Your task to perform on an android device: Search for vegetarian restaurants on Maps Image 0: 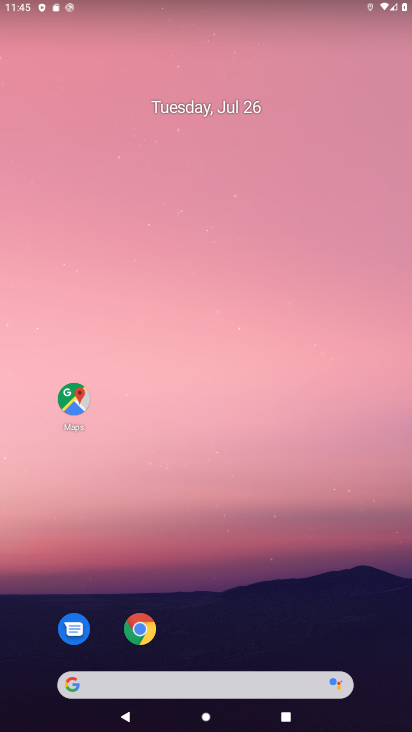
Step 0: drag from (229, 696) to (233, 208)
Your task to perform on an android device: Search for vegetarian restaurants on Maps Image 1: 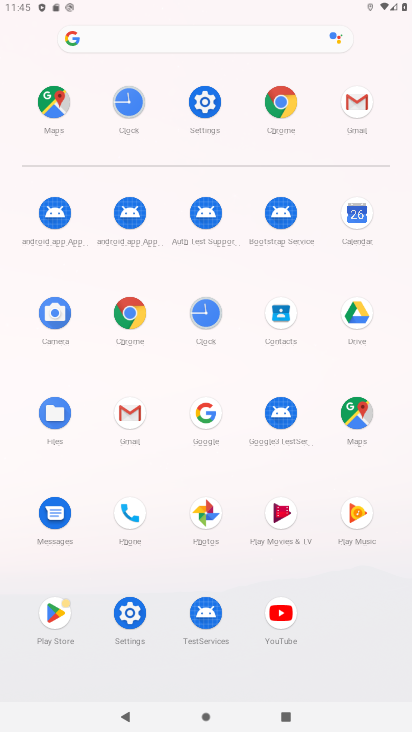
Step 1: click (359, 411)
Your task to perform on an android device: Search for vegetarian restaurants on Maps Image 2: 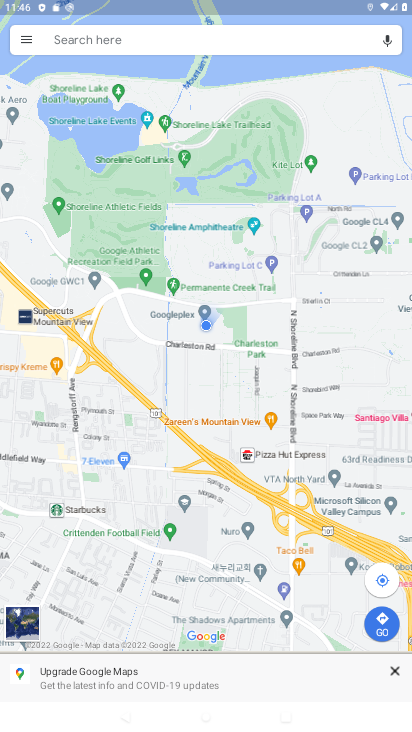
Step 2: click (109, 42)
Your task to perform on an android device: Search for vegetarian restaurants on Maps Image 3: 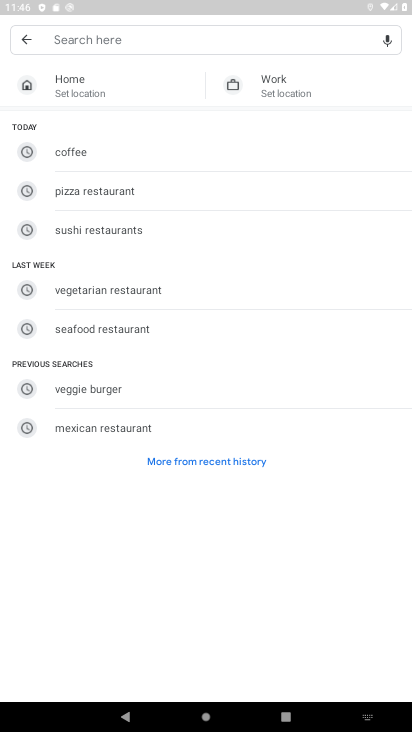
Step 3: type "vegetarian restaurants"
Your task to perform on an android device: Search for vegetarian restaurants on Maps Image 4: 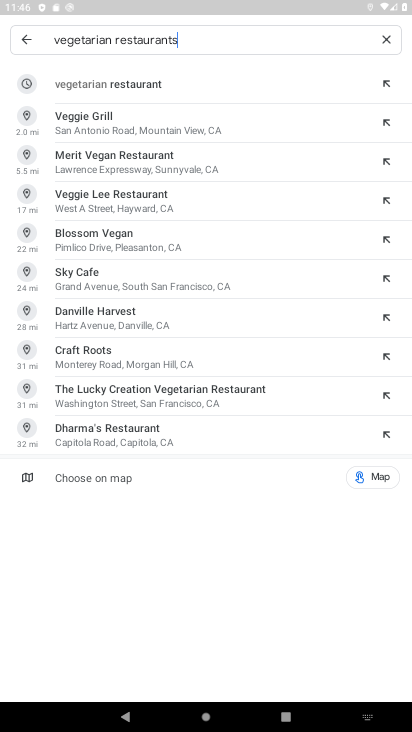
Step 4: click (122, 87)
Your task to perform on an android device: Search for vegetarian restaurants on Maps Image 5: 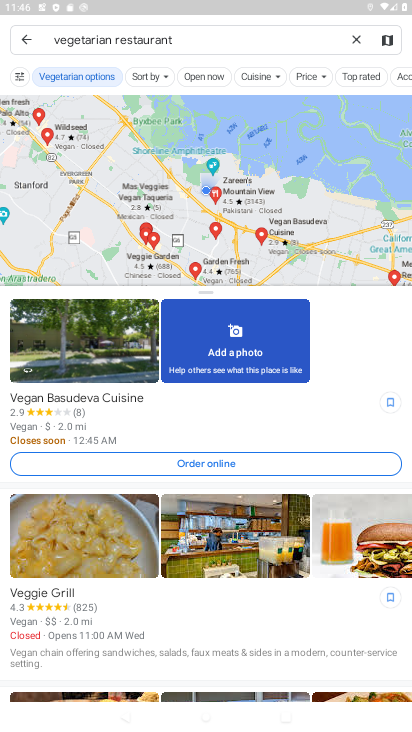
Step 5: task complete